Your task to perform on an android device: Search for Mexican restaurants on Maps Image 0: 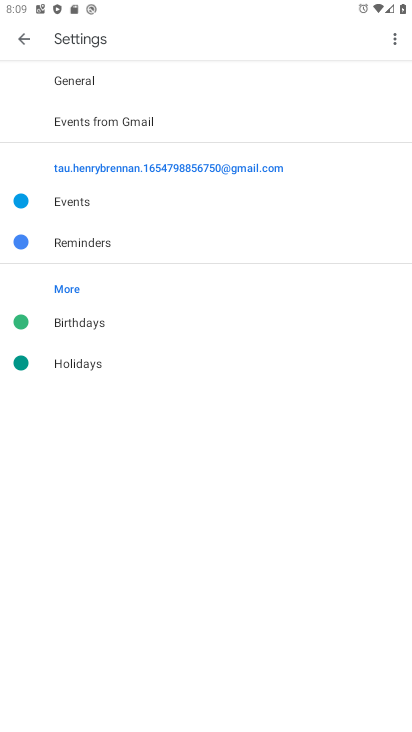
Step 0: press home button
Your task to perform on an android device: Search for Mexican restaurants on Maps Image 1: 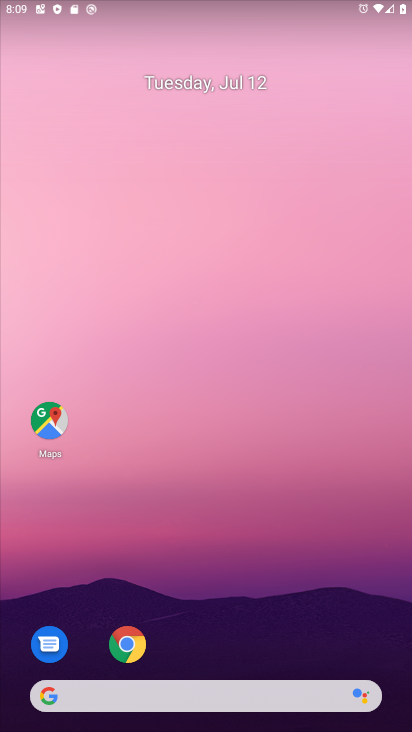
Step 1: click (63, 425)
Your task to perform on an android device: Search for Mexican restaurants on Maps Image 2: 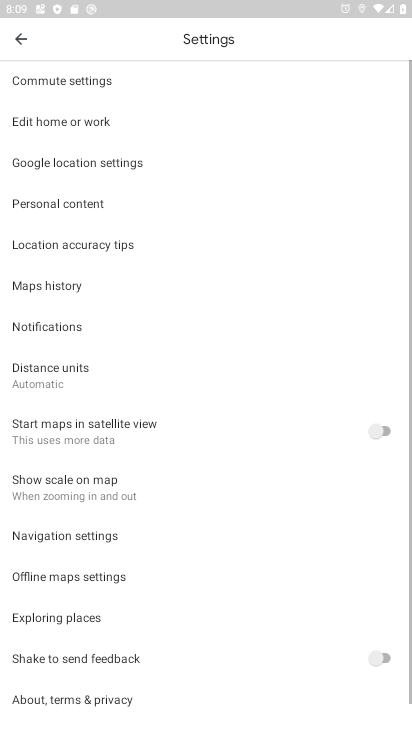
Step 2: click (24, 46)
Your task to perform on an android device: Search for Mexican restaurants on Maps Image 3: 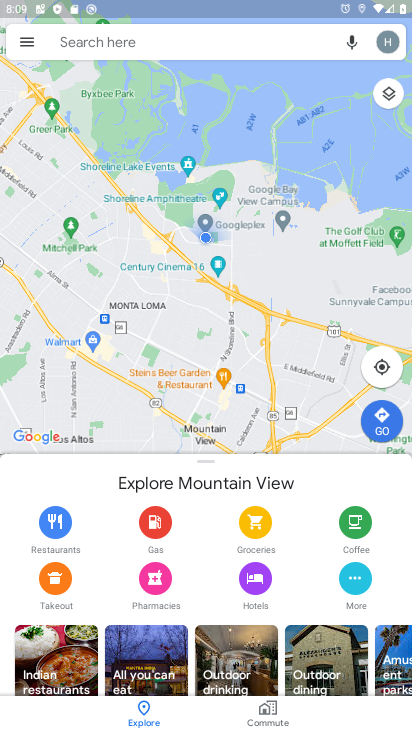
Step 3: click (150, 36)
Your task to perform on an android device: Search for Mexican restaurants on Maps Image 4: 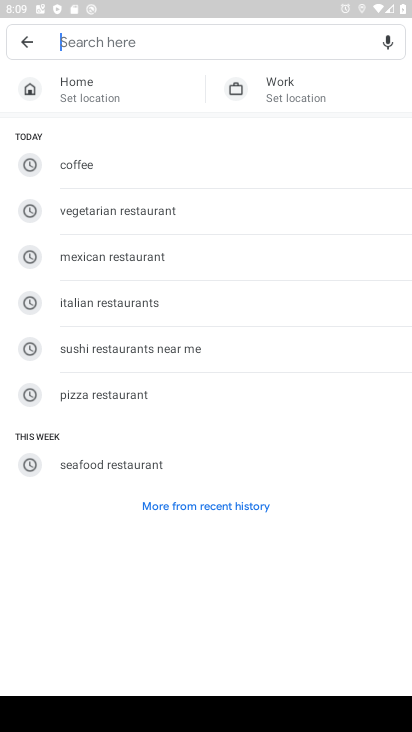
Step 4: click (139, 261)
Your task to perform on an android device: Search for Mexican restaurants on Maps Image 5: 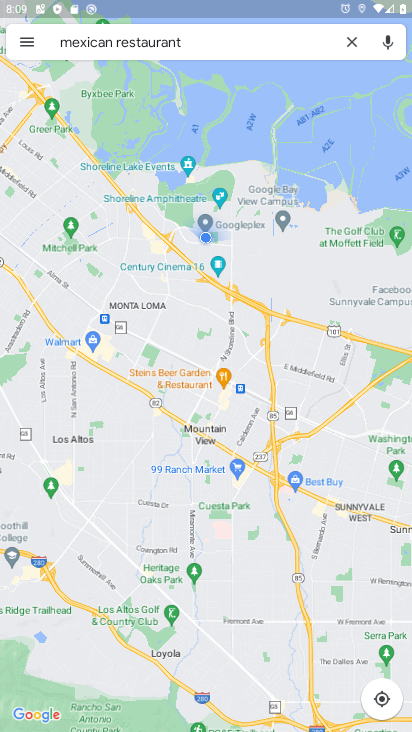
Step 5: task complete